Your task to perform on an android device: Open Google Image 0: 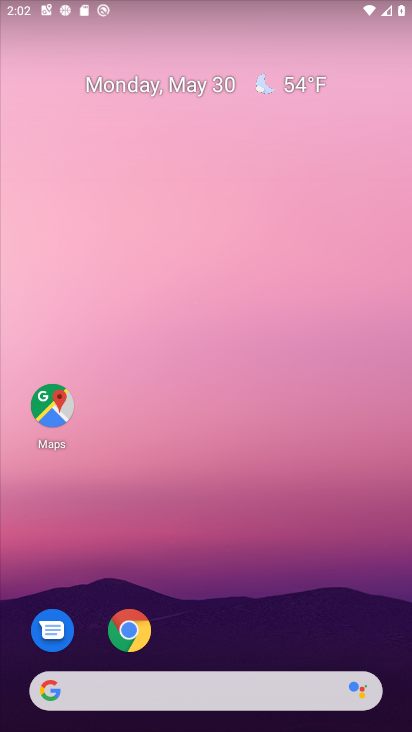
Step 0: press home button
Your task to perform on an android device: Open Google Image 1: 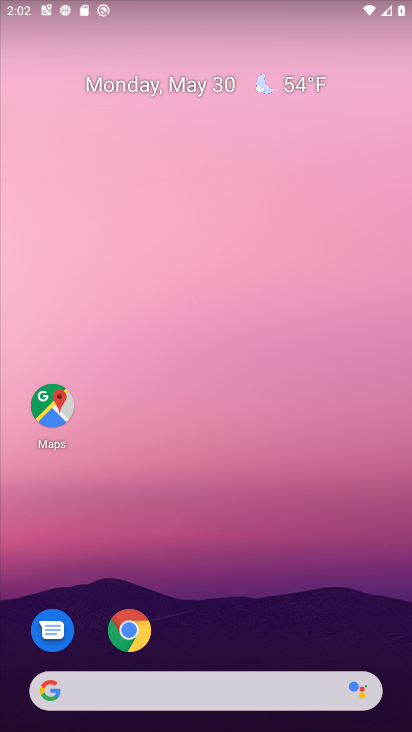
Step 1: drag from (149, 690) to (317, 71)
Your task to perform on an android device: Open Google Image 2: 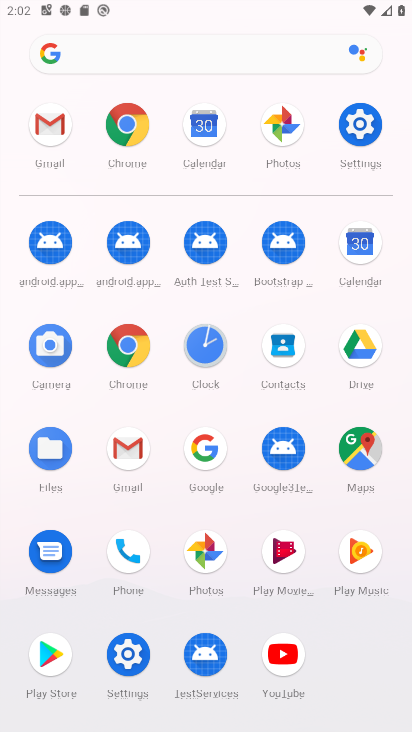
Step 2: click (207, 445)
Your task to perform on an android device: Open Google Image 3: 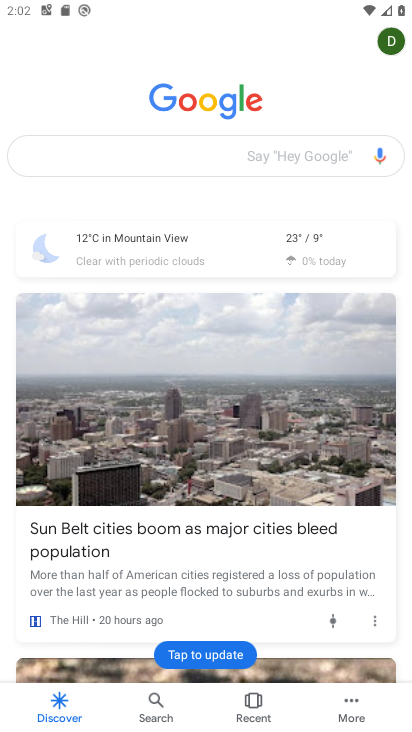
Step 3: task complete